Your task to perform on an android device: Do I have any events today? Image 0: 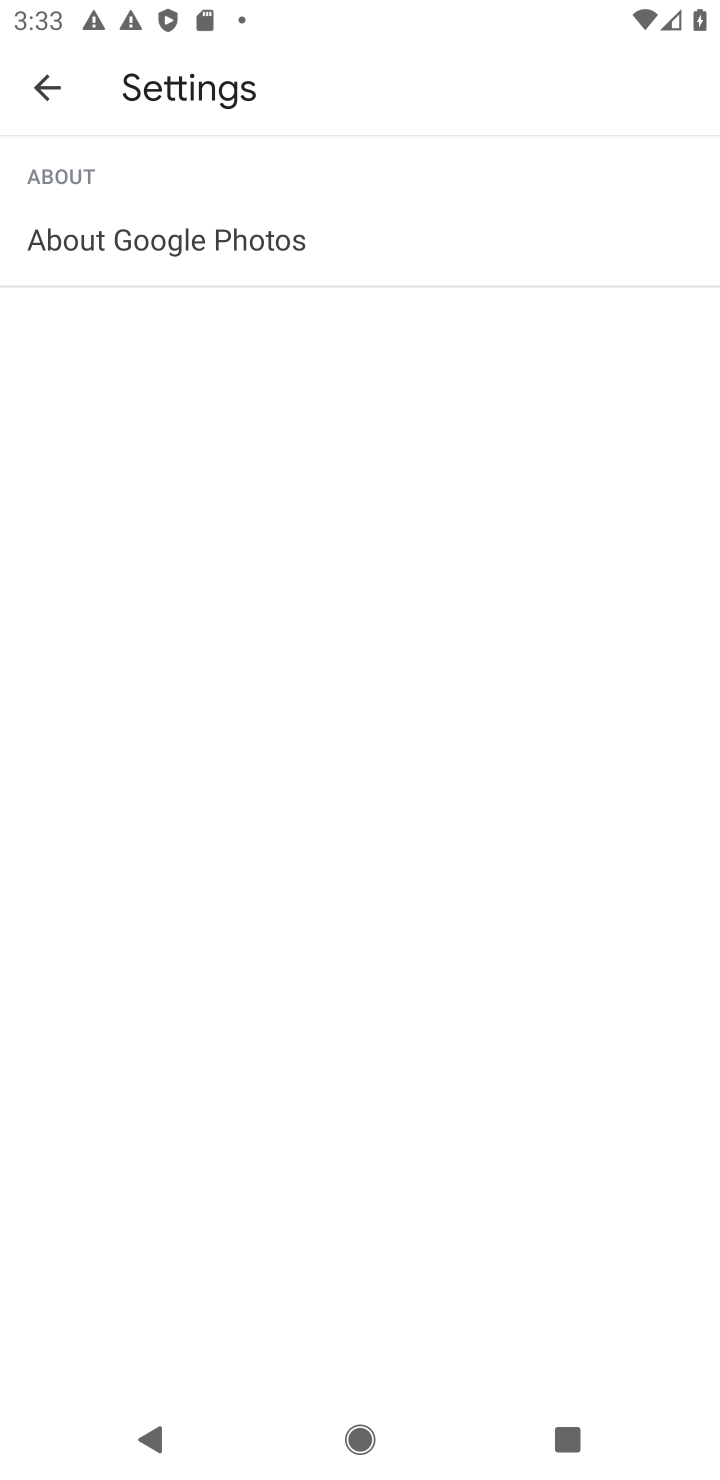
Step 0: press home button
Your task to perform on an android device: Do I have any events today? Image 1: 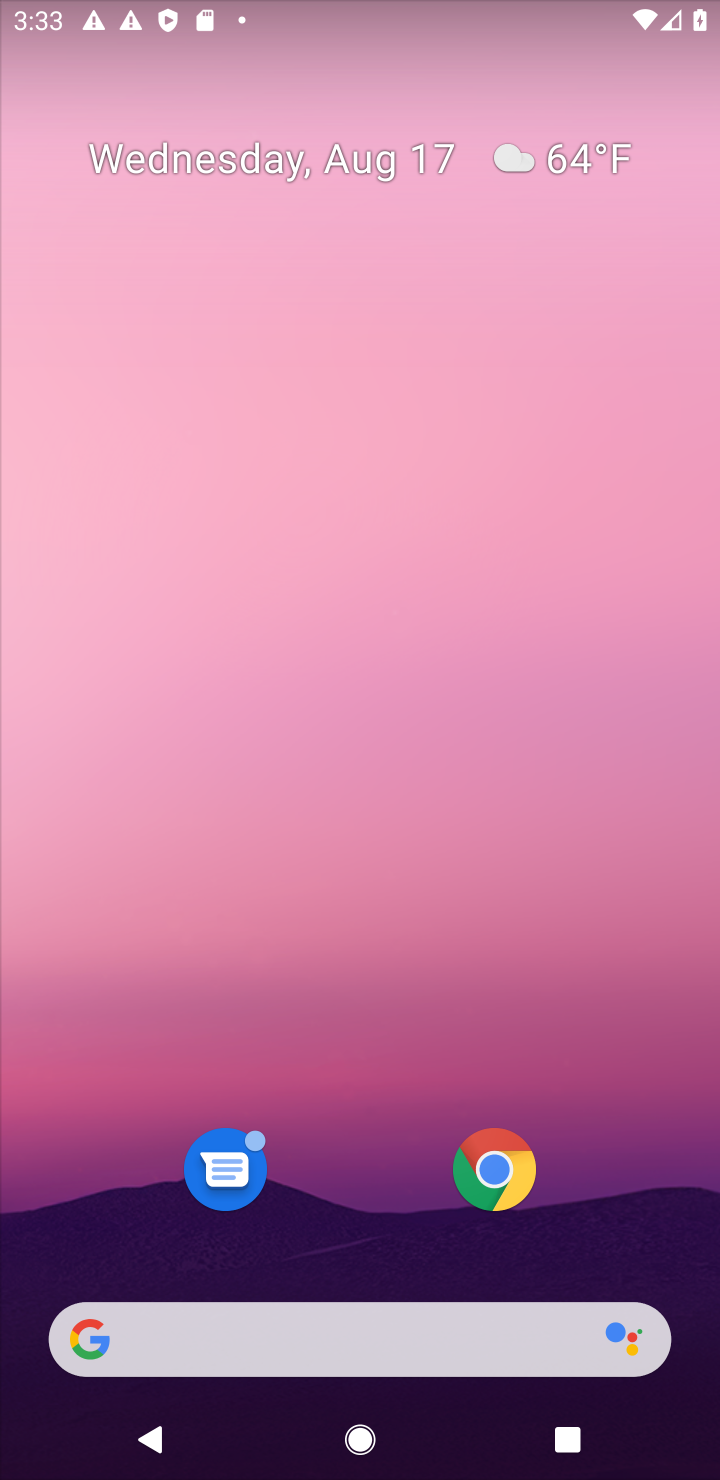
Step 1: drag from (376, 1146) to (399, 64)
Your task to perform on an android device: Do I have any events today? Image 2: 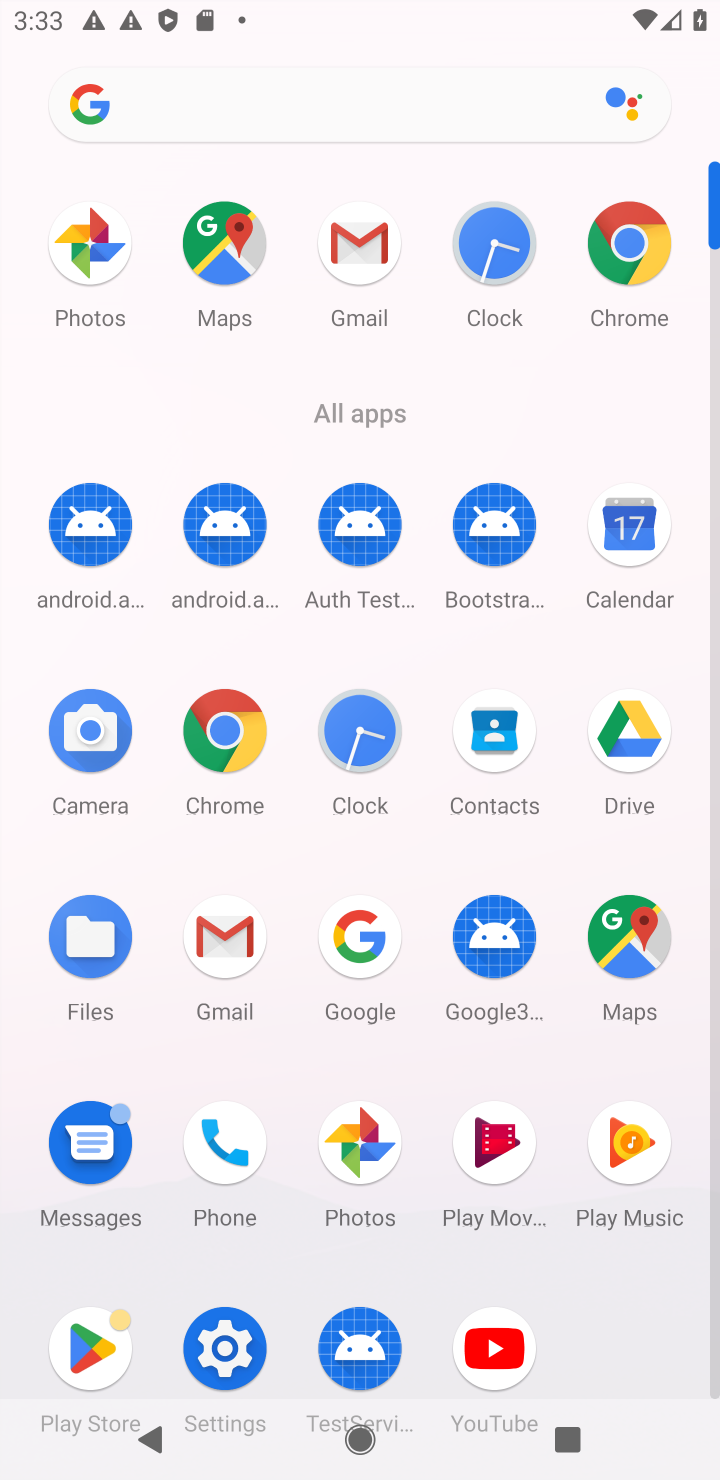
Step 2: click (650, 501)
Your task to perform on an android device: Do I have any events today? Image 3: 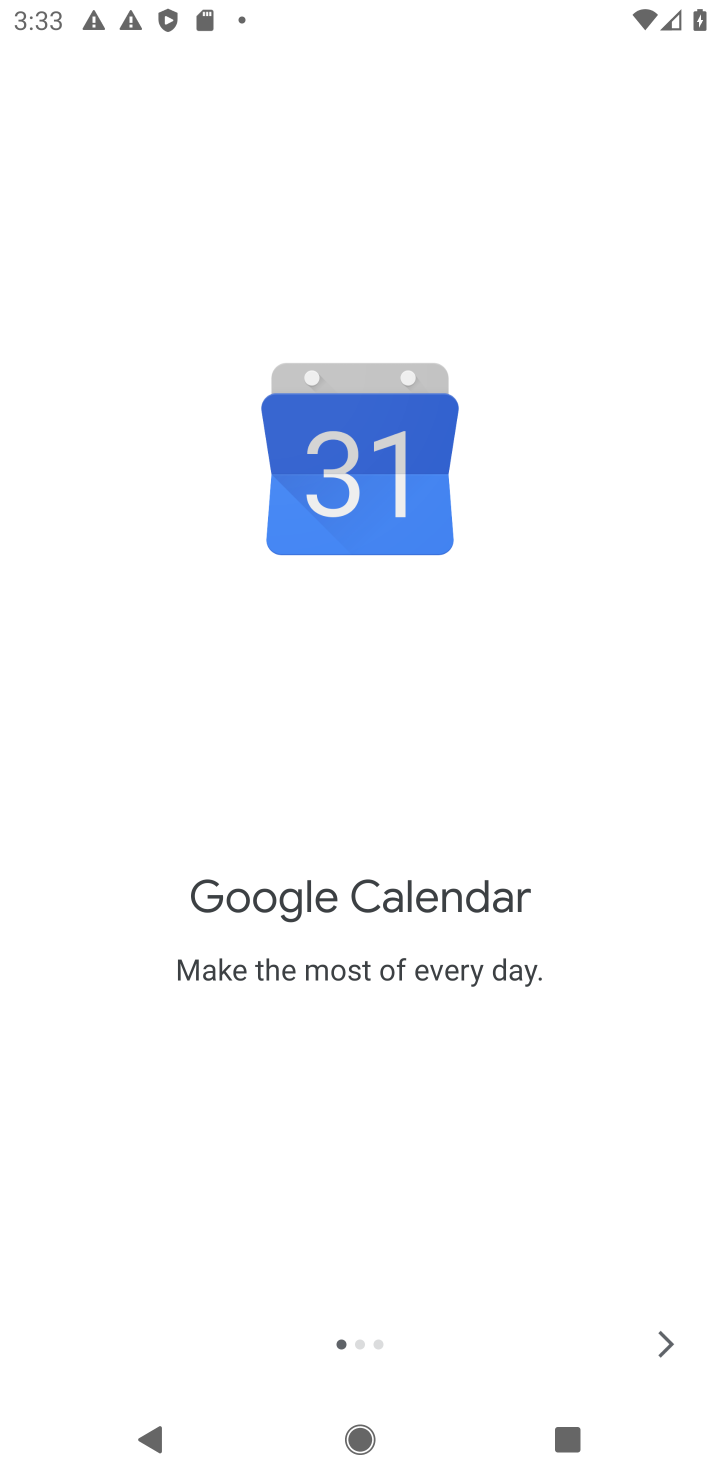
Step 3: click (666, 1330)
Your task to perform on an android device: Do I have any events today? Image 4: 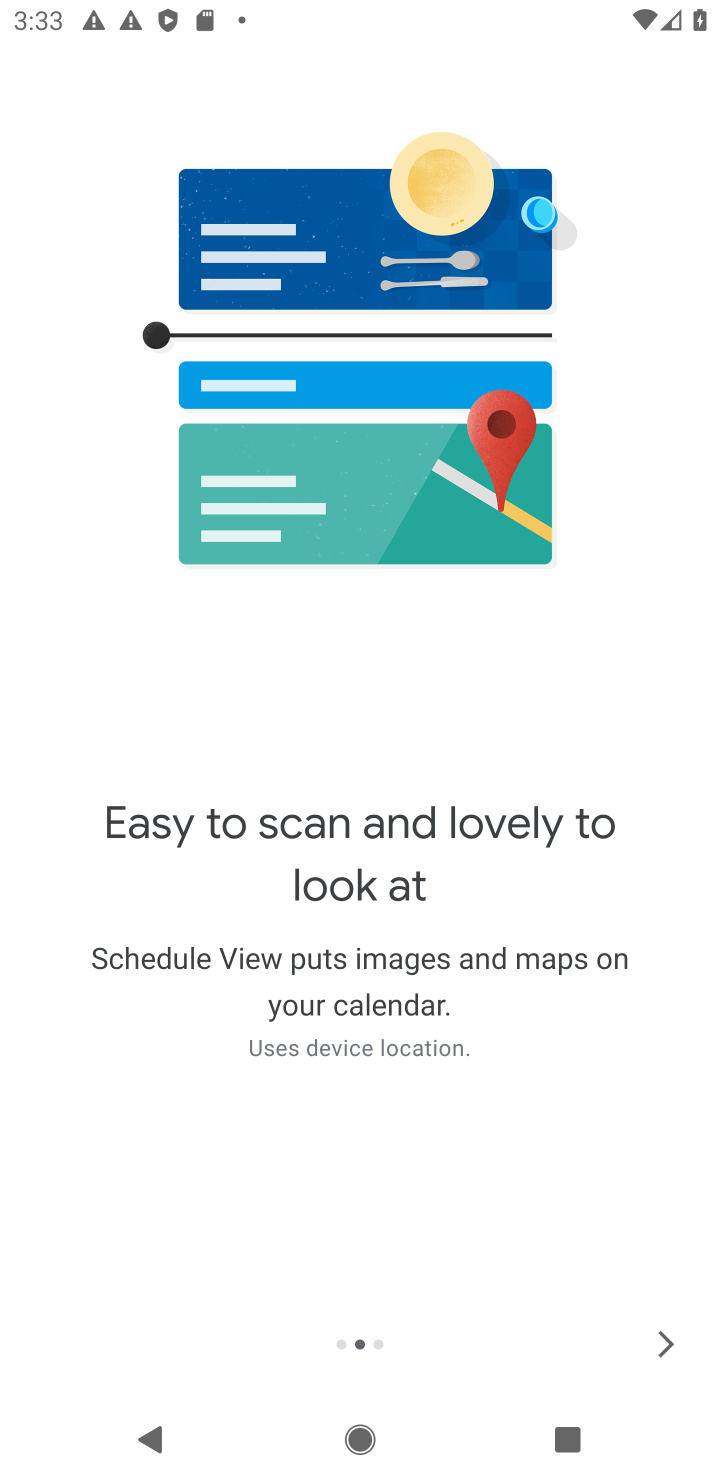
Step 4: click (666, 1330)
Your task to perform on an android device: Do I have any events today? Image 5: 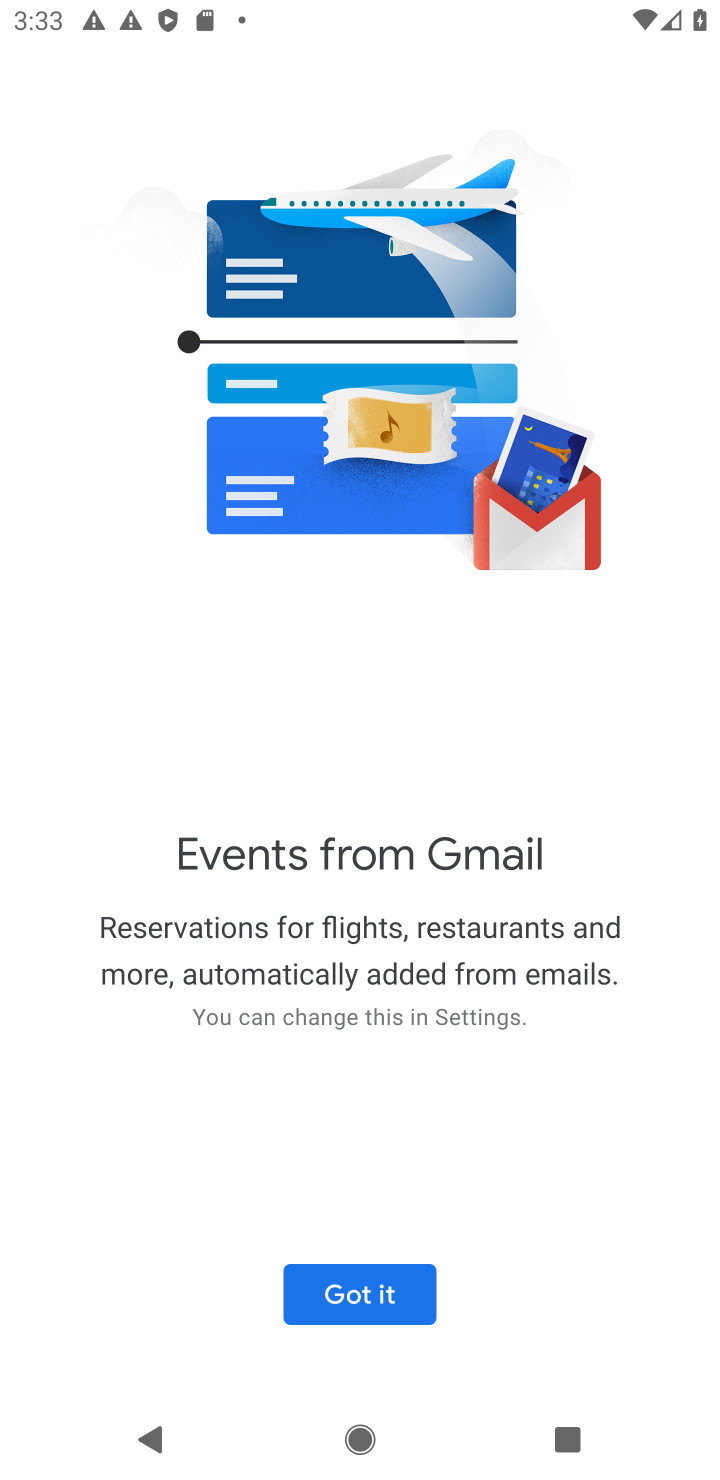
Step 5: click (402, 1291)
Your task to perform on an android device: Do I have any events today? Image 6: 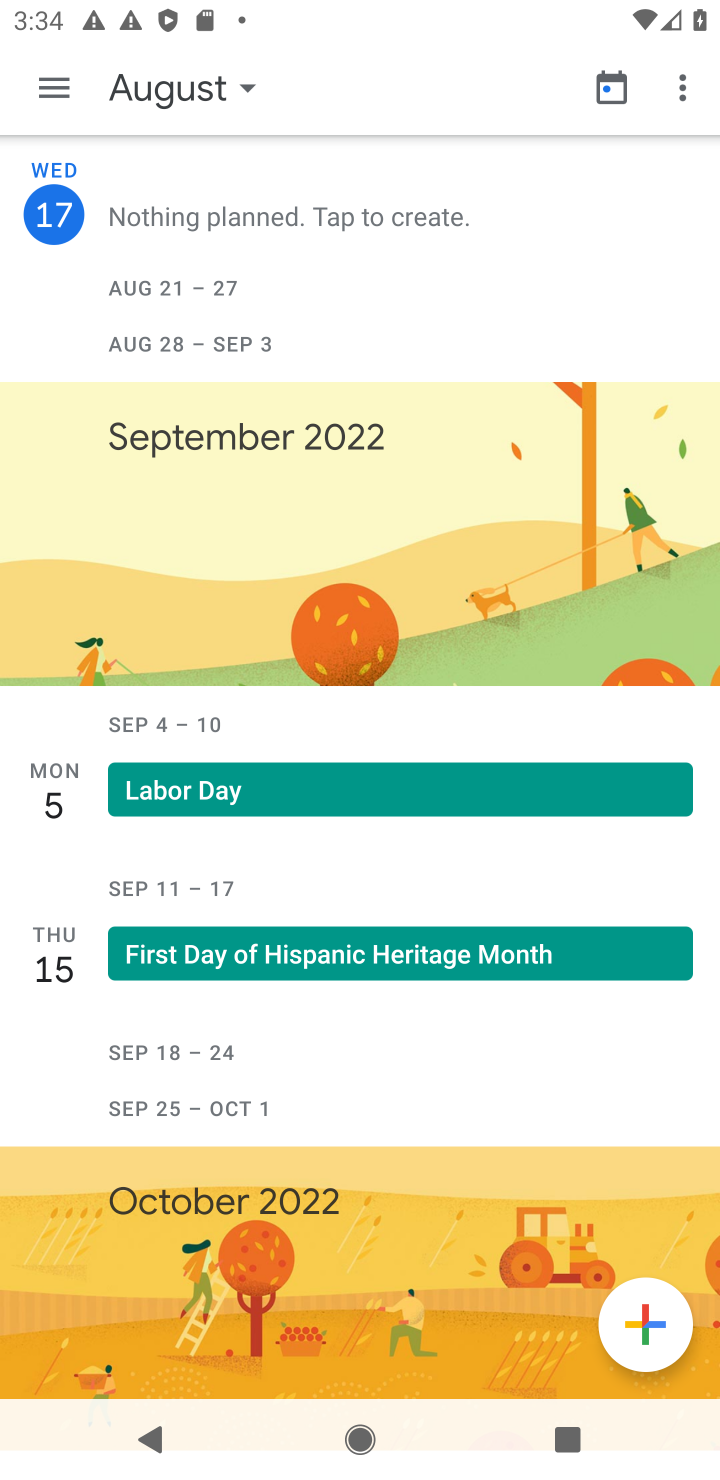
Step 6: click (216, 82)
Your task to perform on an android device: Do I have any events today? Image 7: 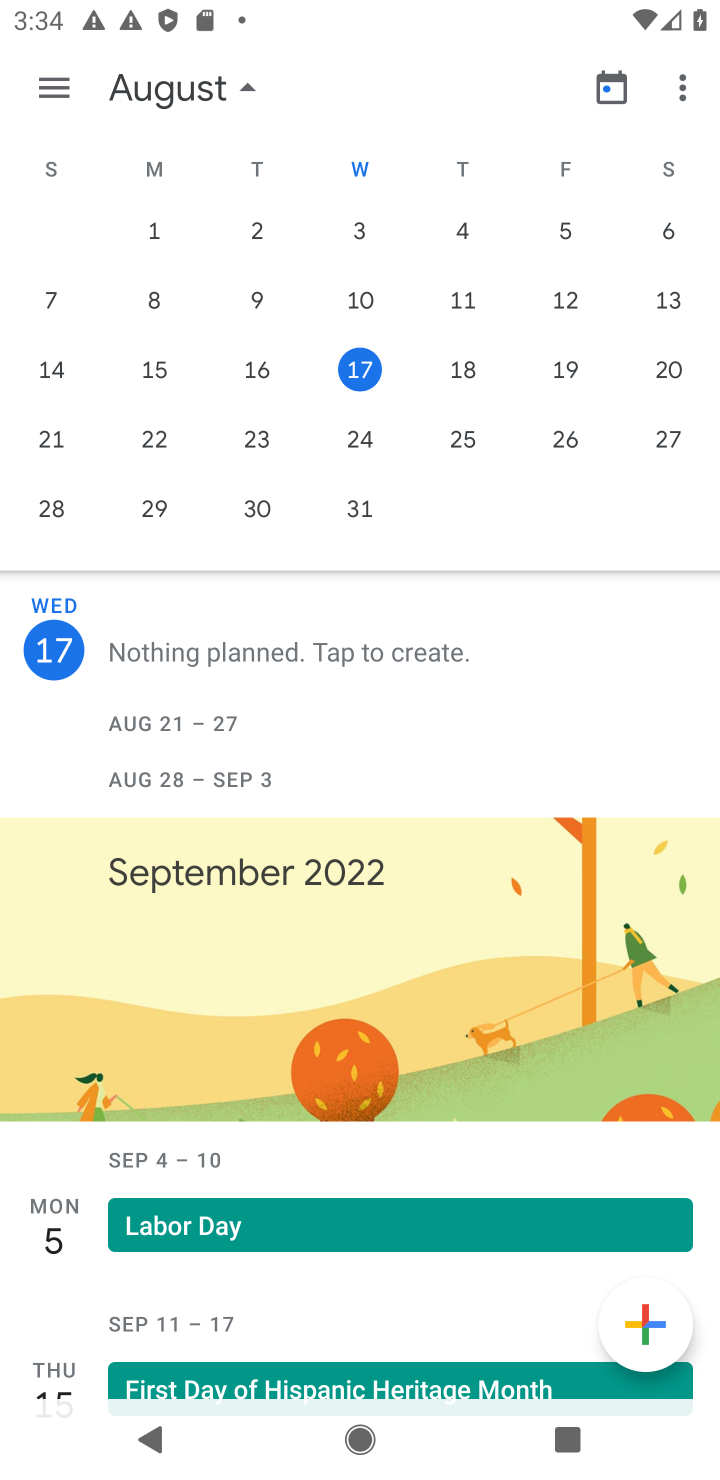
Step 7: click (375, 367)
Your task to perform on an android device: Do I have any events today? Image 8: 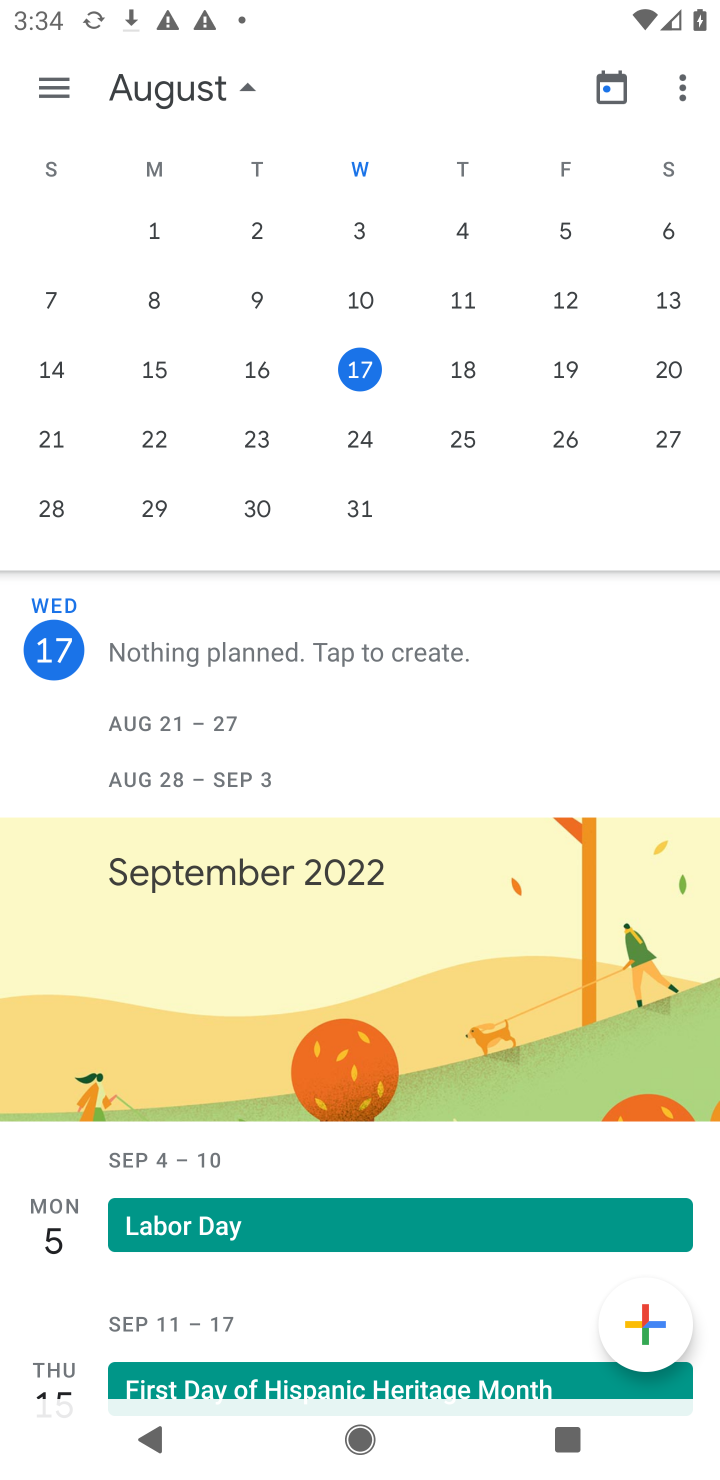
Step 8: task complete